Your task to perform on an android device: Search for Italian restaurants on Maps Image 0: 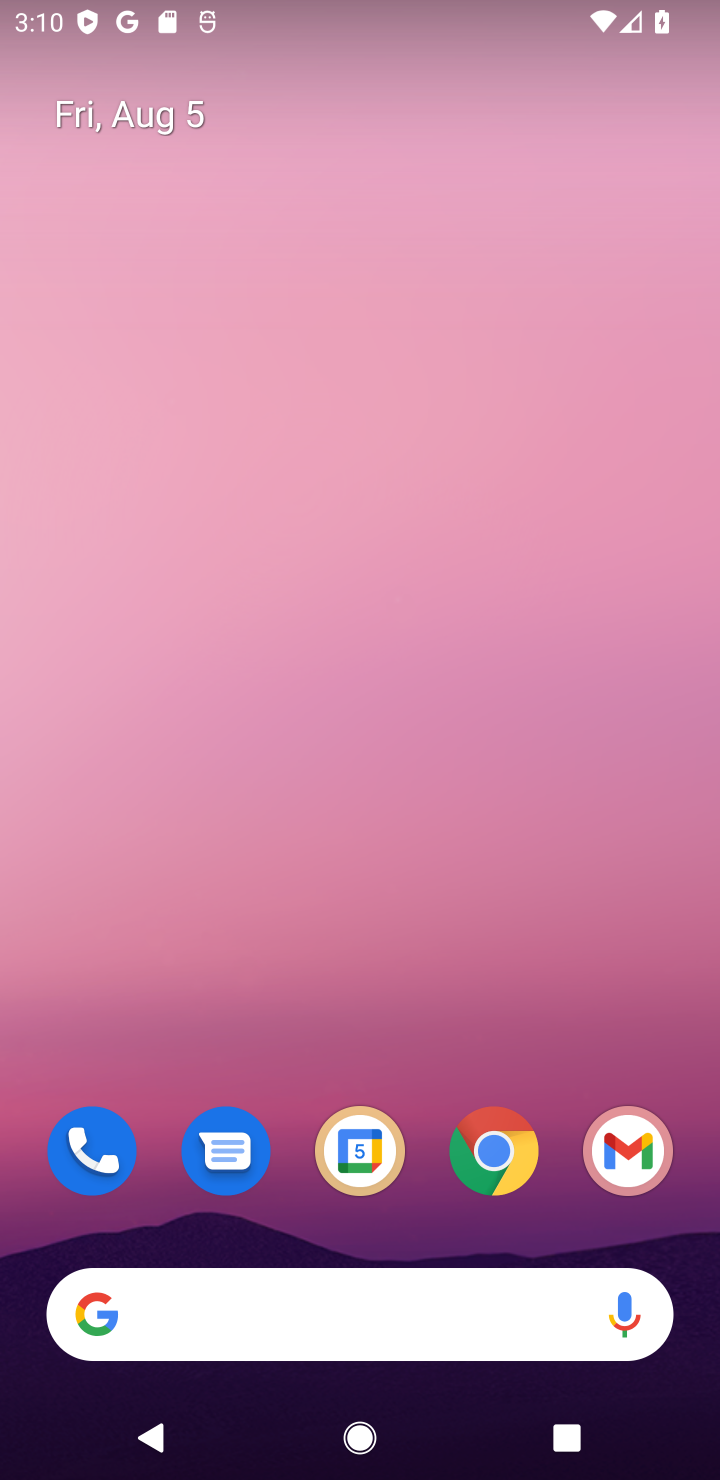
Step 0: drag from (298, 977) to (422, 13)
Your task to perform on an android device: Search for Italian restaurants on Maps Image 1: 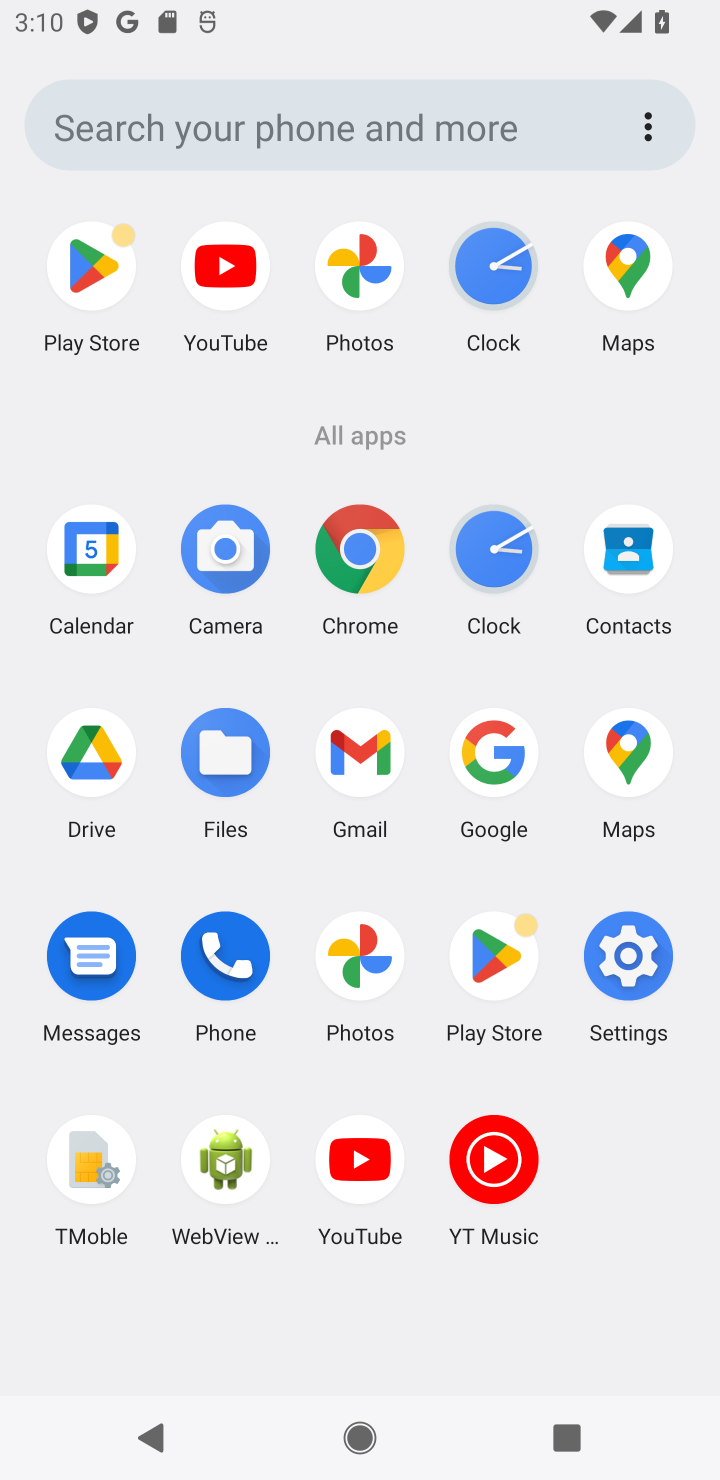
Step 1: click (645, 723)
Your task to perform on an android device: Search for Italian restaurants on Maps Image 2: 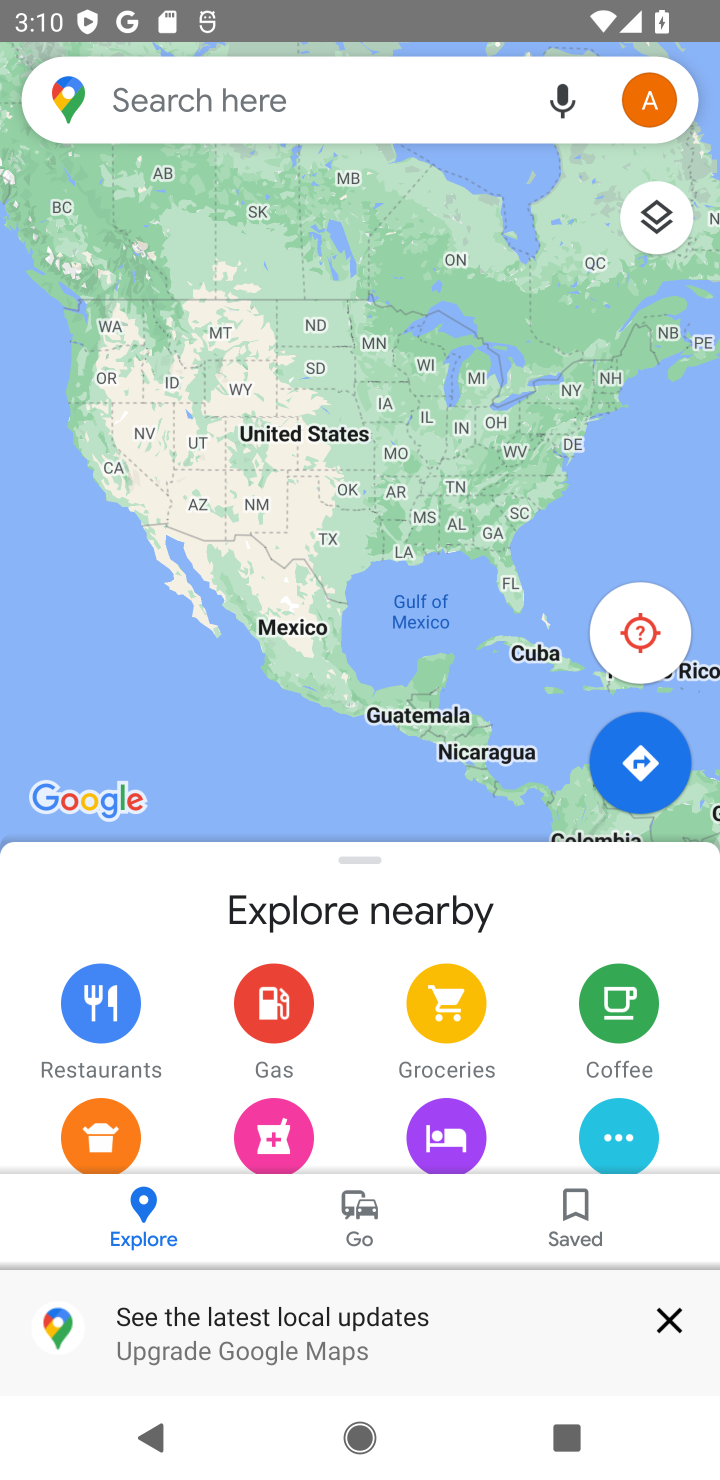
Step 2: click (227, 96)
Your task to perform on an android device: Search for Italian restaurants on Maps Image 3: 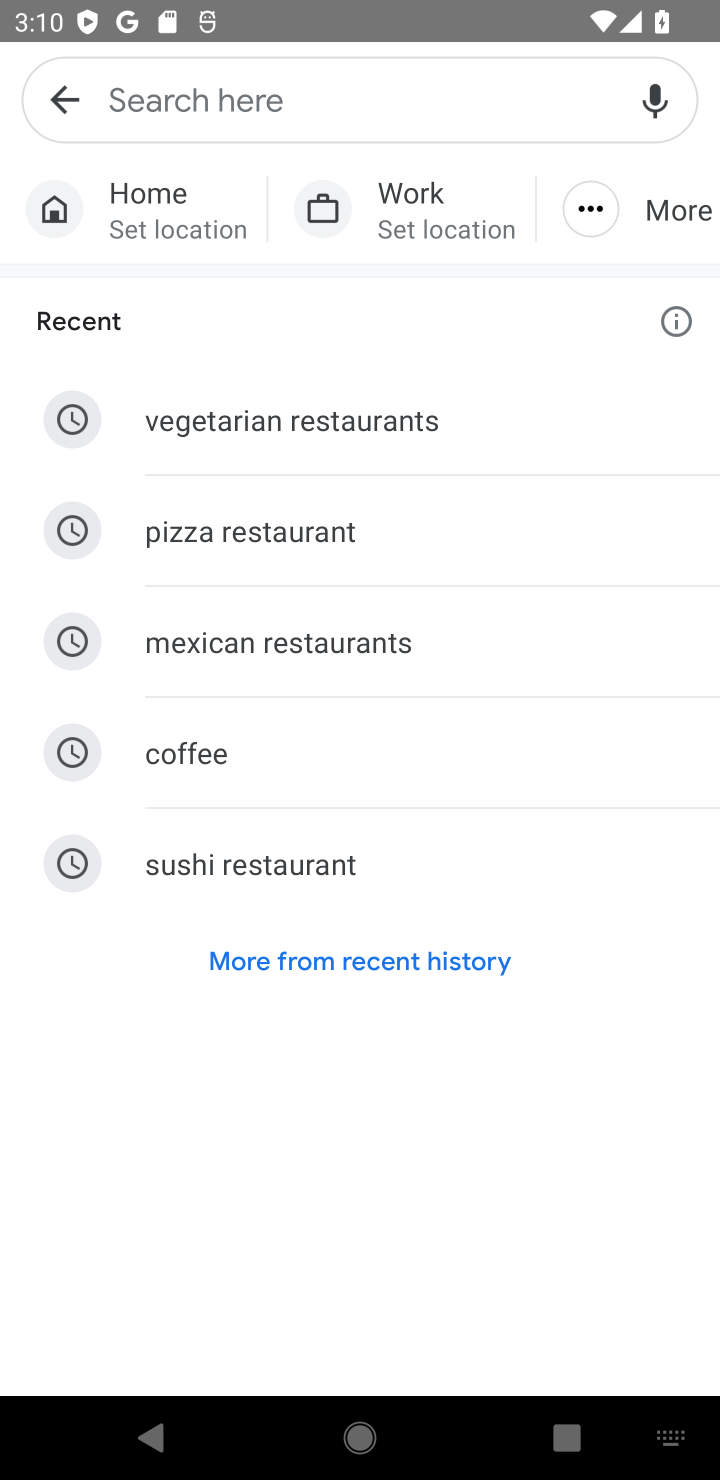
Step 3: type "italian restaurants"
Your task to perform on an android device: Search for Italian restaurants on Maps Image 4: 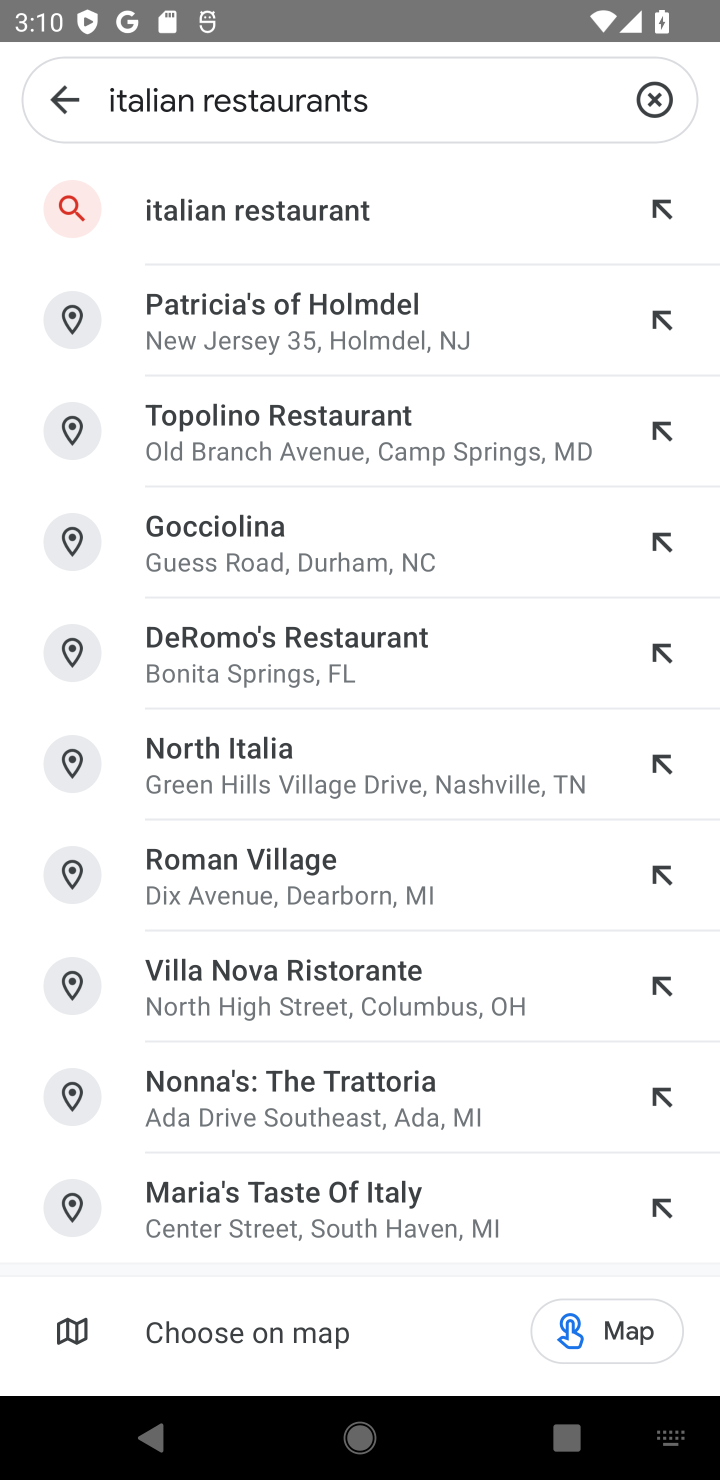
Step 4: click (453, 186)
Your task to perform on an android device: Search for Italian restaurants on Maps Image 5: 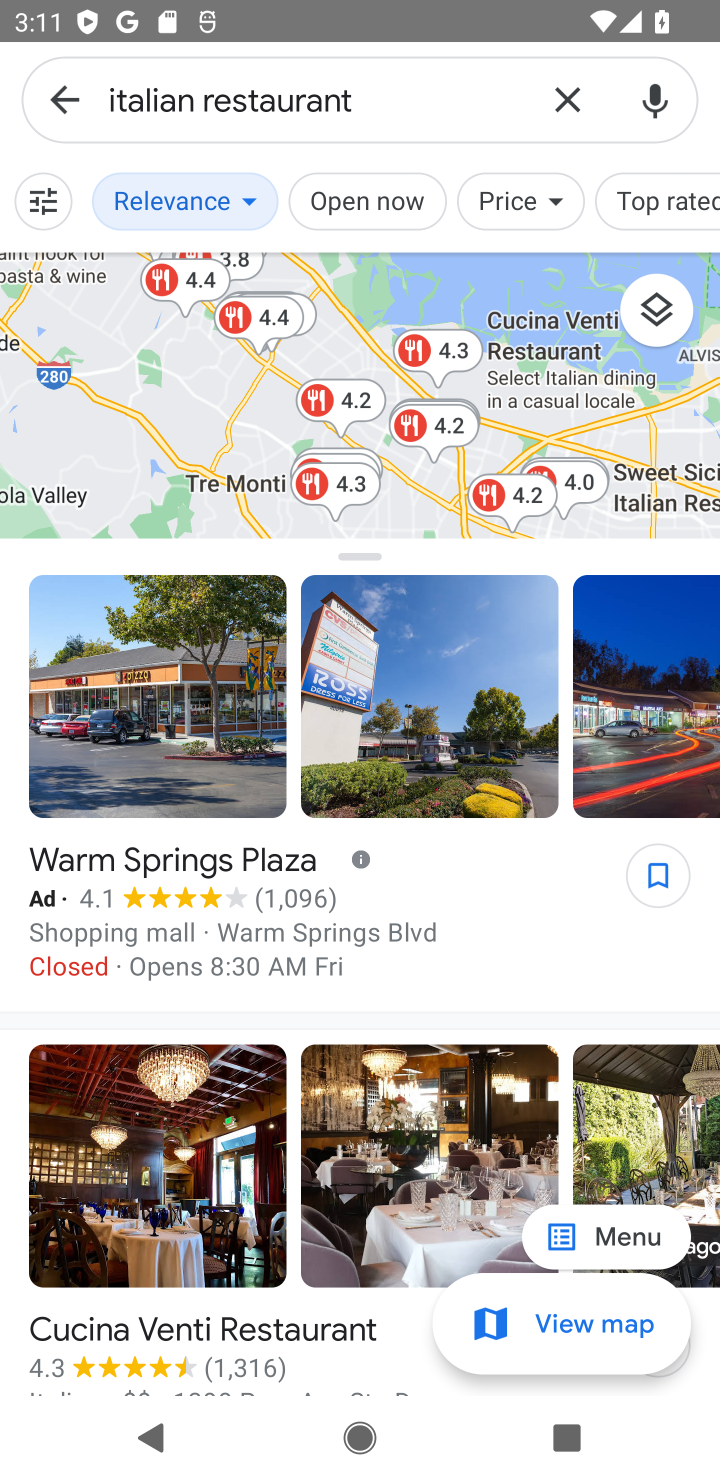
Step 5: task complete